Your task to perform on an android device: set the stopwatch Image 0: 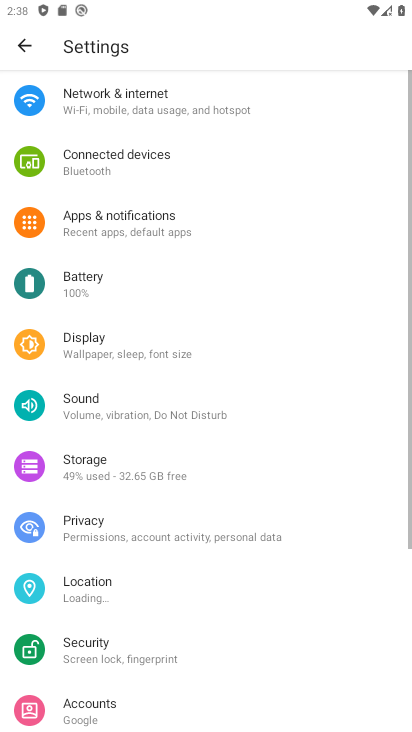
Step 0: press home button
Your task to perform on an android device: set the stopwatch Image 1: 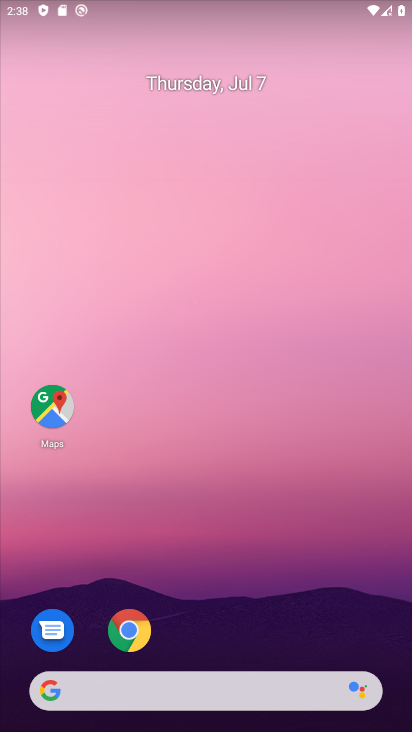
Step 1: drag from (289, 630) to (284, 81)
Your task to perform on an android device: set the stopwatch Image 2: 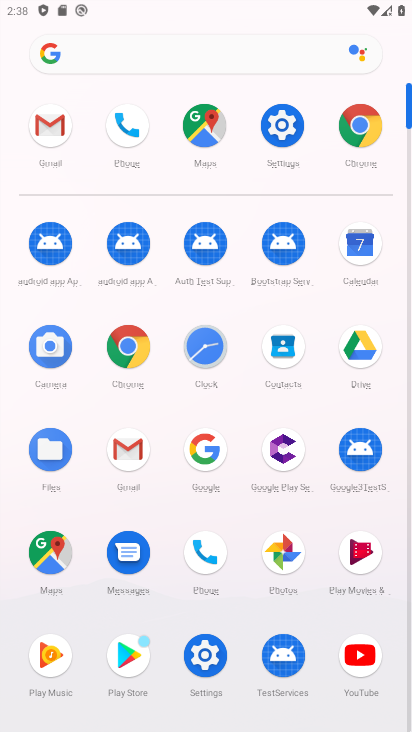
Step 2: click (205, 350)
Your task to perform on an android device: set the stopwatch Image 3: 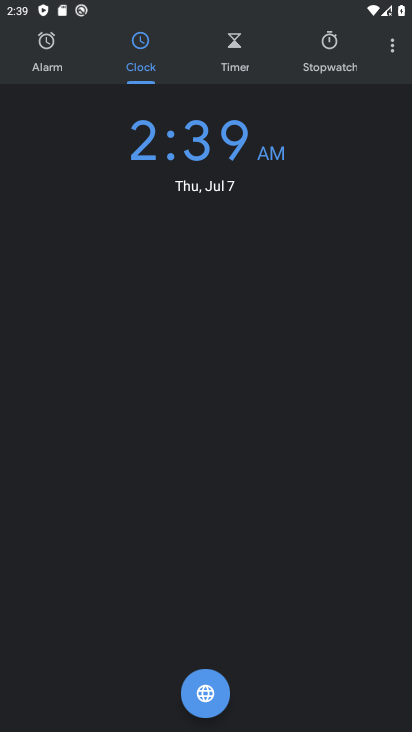
Step 3: click (342, 38)
Your task to perform on an android device: set the stopwatch Image 4: 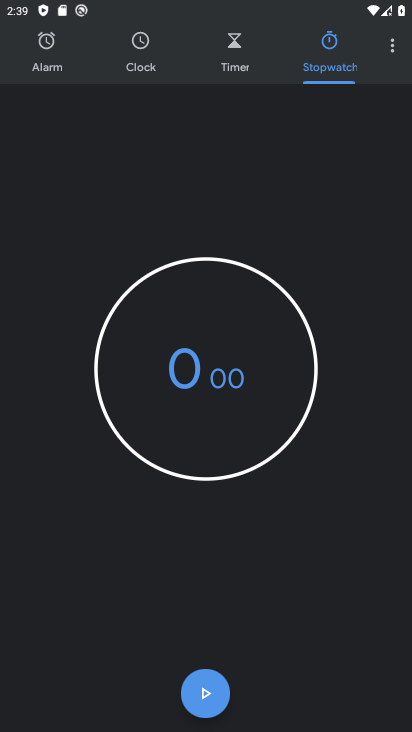
Step 4: task complete